Your task to perform on an android device: open chrome and create a bookmark for the current page Image 0: 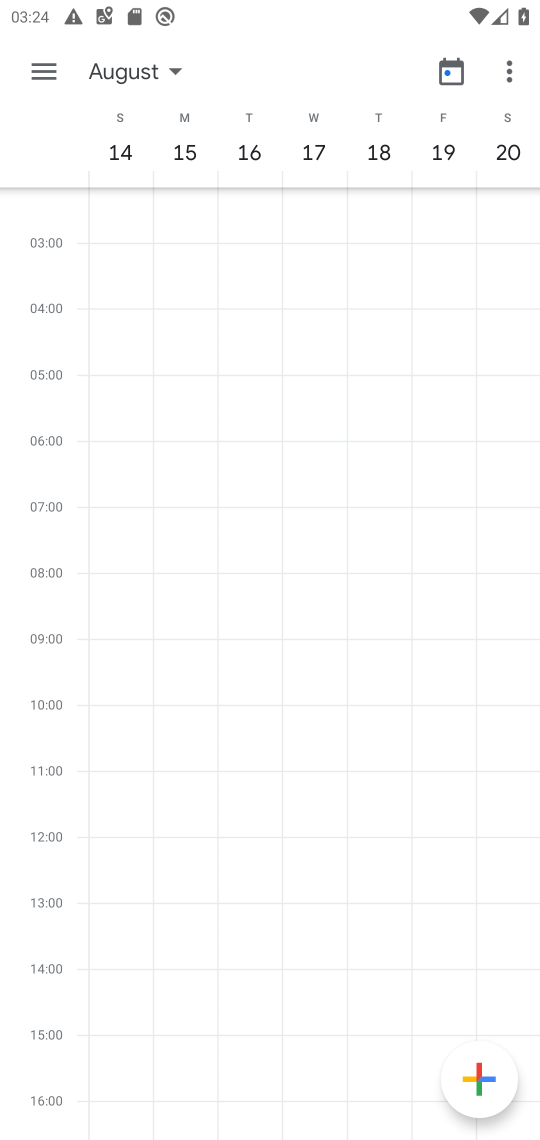
Step 0: press home button
Your task to perform on an android device: open chrome and create a bookmark for the current page Image 1: 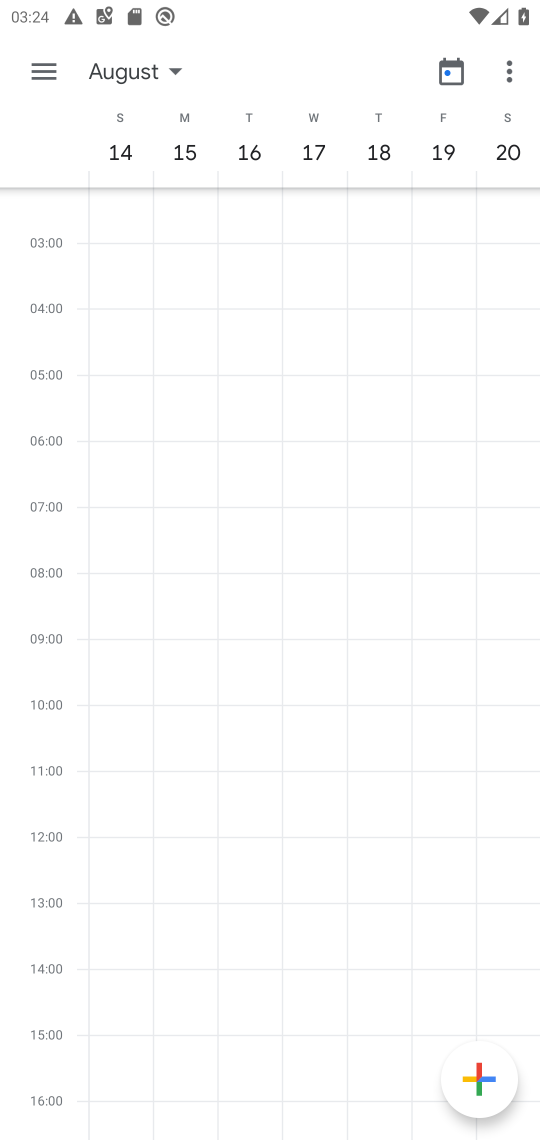
Step 1: press home button
Your task to perform on an android device: open chrome and create a bookmark for the current page Image 2: 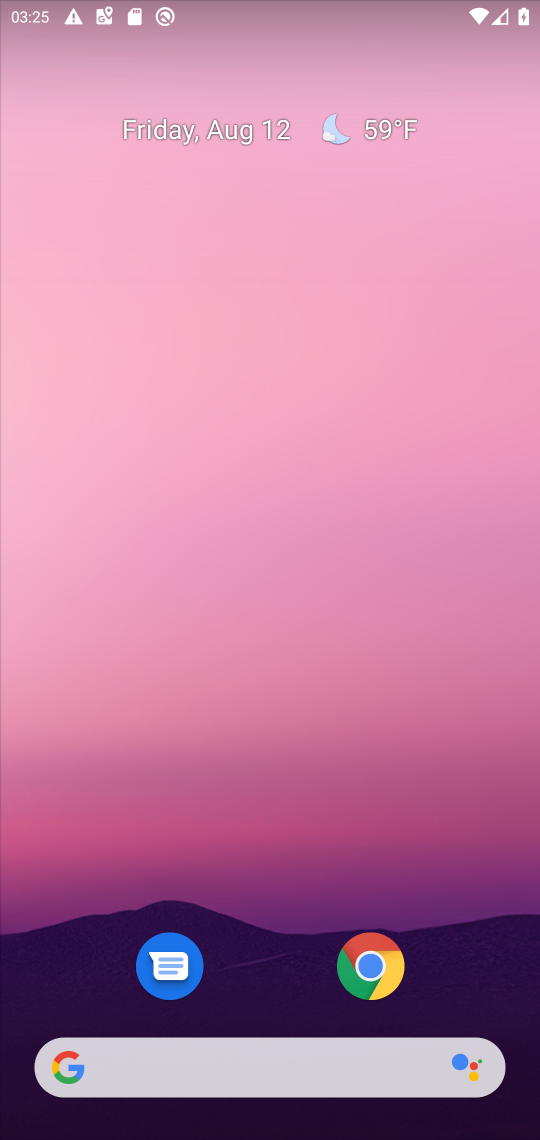
Step 2: drag from (289, 808) to (348, 82)
Your task to perform on an android device: open chrome and create a bookmark for the current page Image 3: 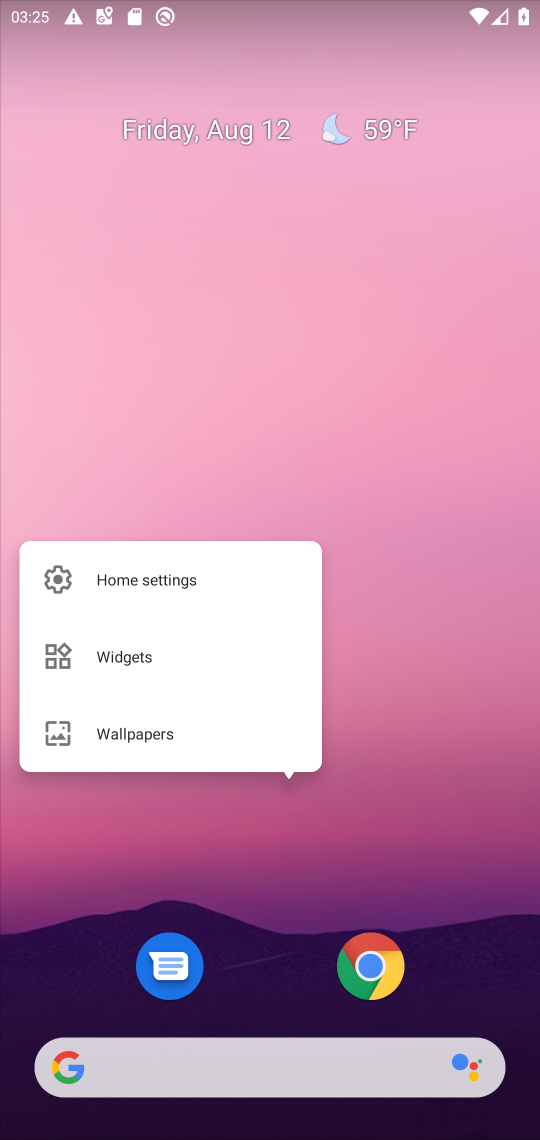
Step 3: click (434, 701)
Your task to perform on an android device: open chrome and create a bookmark for the current page Image 4: 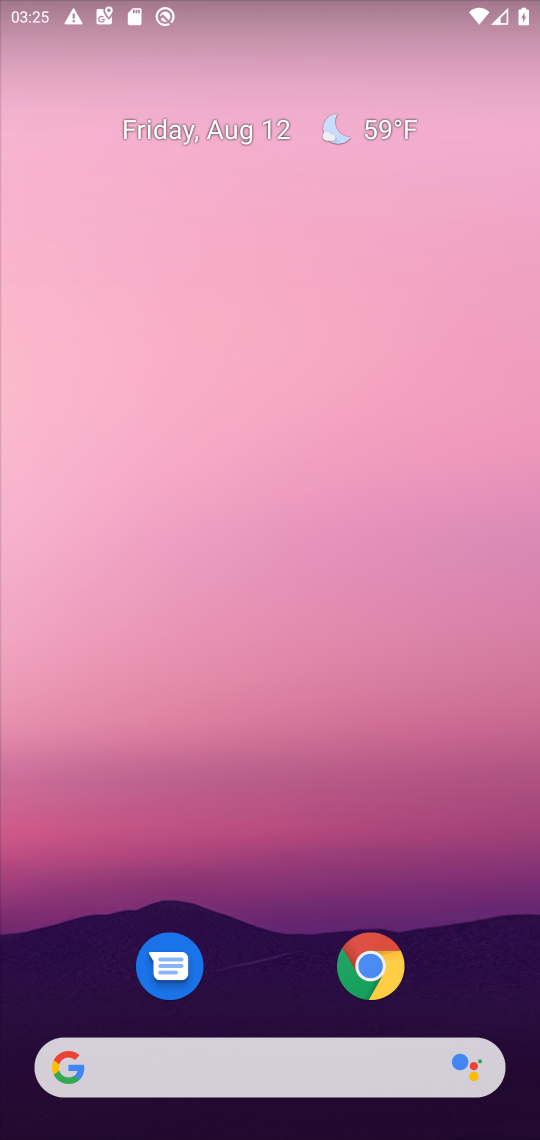
Step 4: drag from (304, 632) to (327, 165)
Your task to perform on an android device: open chrome and create a bookmark for the current page Image 5: 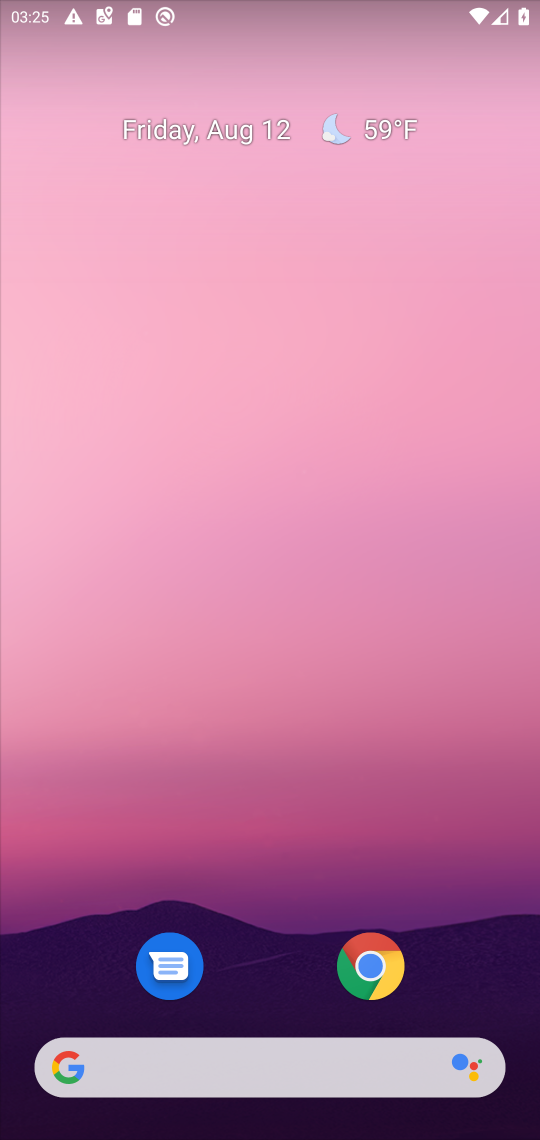
Step 5: drag from (272, 928) to (331, 46)
Your task to perform on an android device: open chrome and create a bookmark for the current page Image 6: 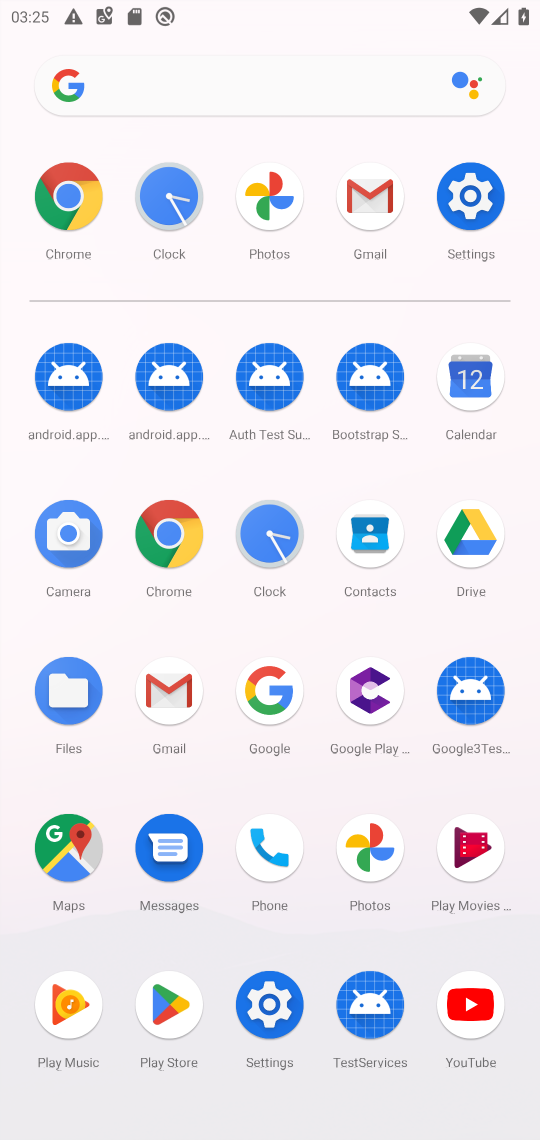
Step 6: click (167, 531)
Your task to perform on an android device: open chrome and create a bookmark for the current page Image 7: 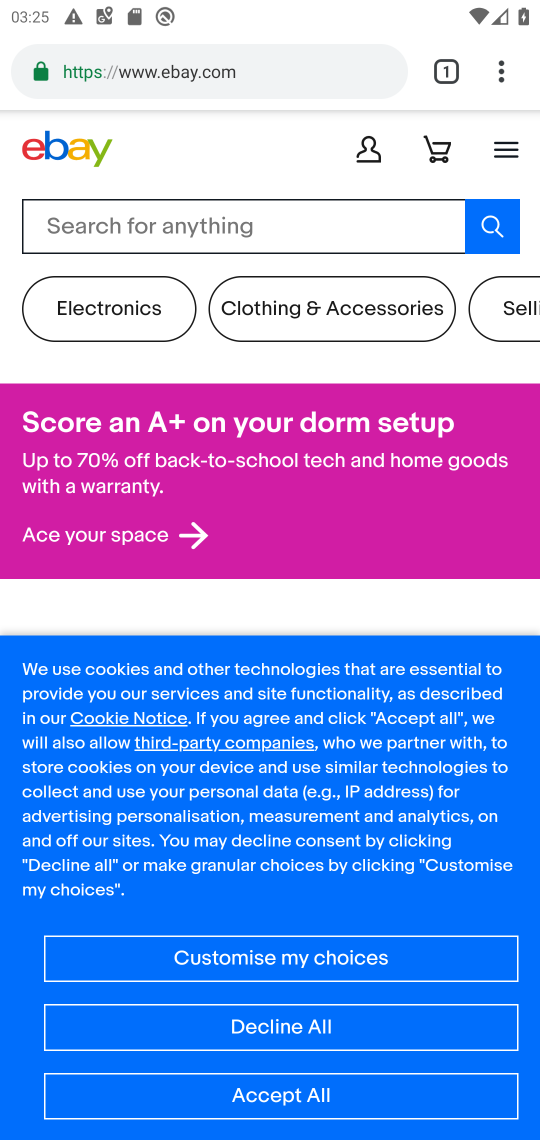
Step 7: task complete